Your task to perform on an android device: turn on translation in the chrome app Image 0: 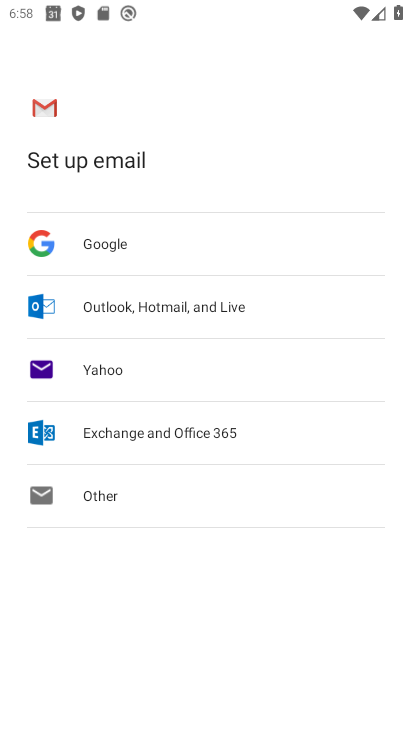
Step 0: press home button
Your task to perform on an android device: turn on translation in the chrome app Image 1: 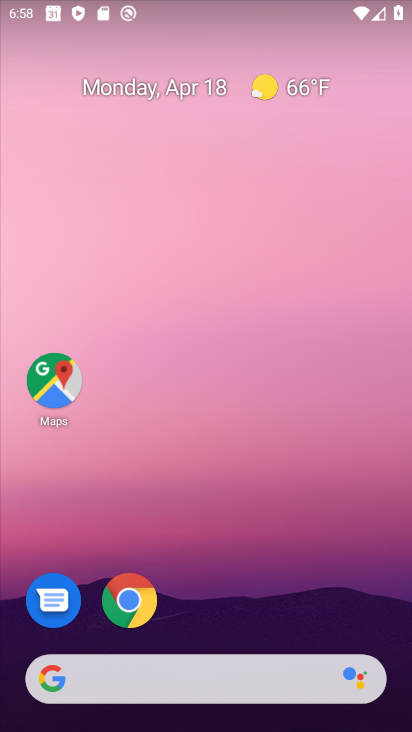
Step 1: click (137, 598)
Your task to perform on an android device: turn on translation in the chrome app Image 2: 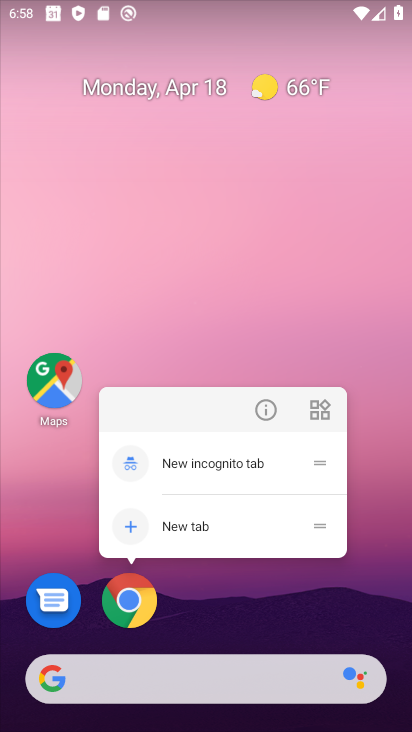
Step 2: click (134, 609)
Your task to perform on an android device: turn on translation in the chrome app Image 3: 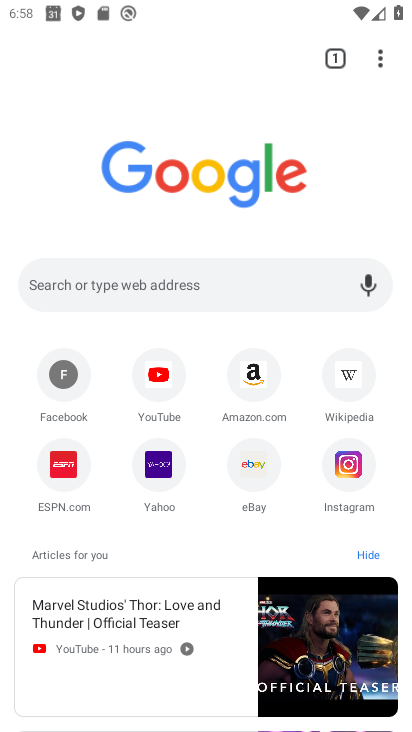
Step 3: click (380, 66)
Your task to perform on an android device: turn on translation in the chrome app Image 4: 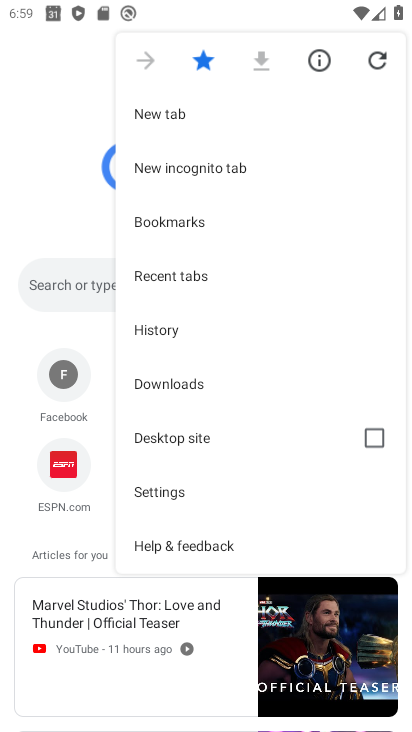
Step 4: click (159, 494)
Your task to perform on an android device: turn on translation in the chrome app Image 5: 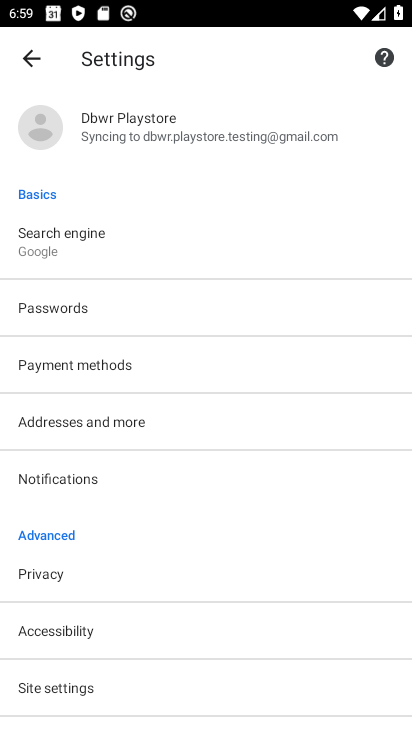
Step 5: drag from (147, 577) to (180, 285)
Your task to perform on an android device: turn on translation in the chrome app Image 6: 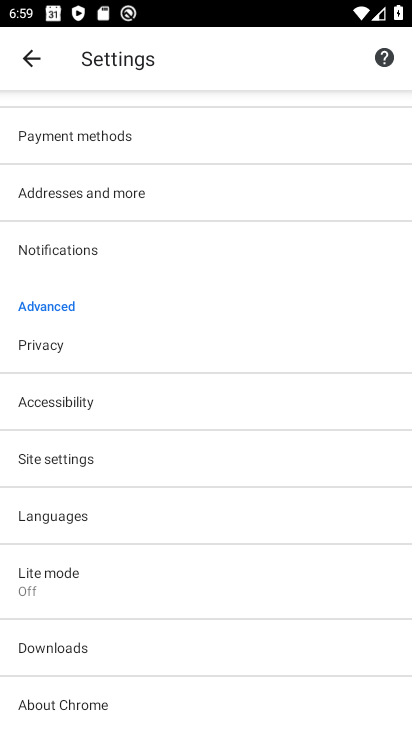
Step 6: click (69, 513)
Your task to perform on an android device: turn on translation in the chrome app Image 7: 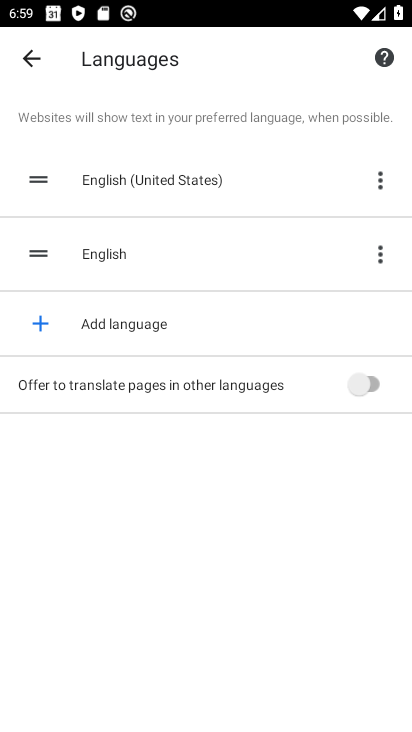
Step 7: click (361, 385)
Your task to perform on an android device: turn on translation in the chrome app Image 8: 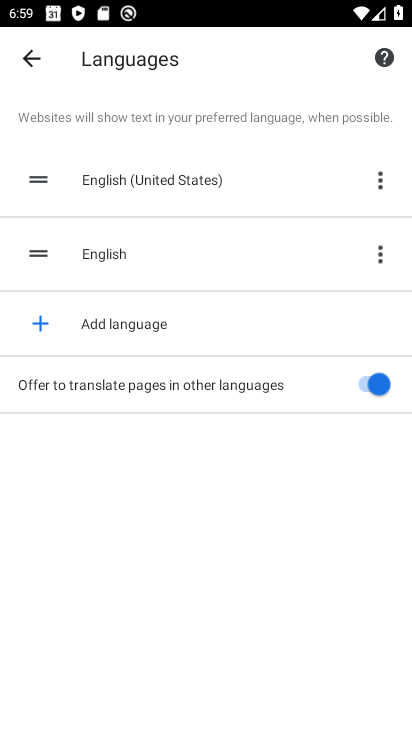
Step 8: task complete